Your task to perform on an android device: set the timer Image 0: 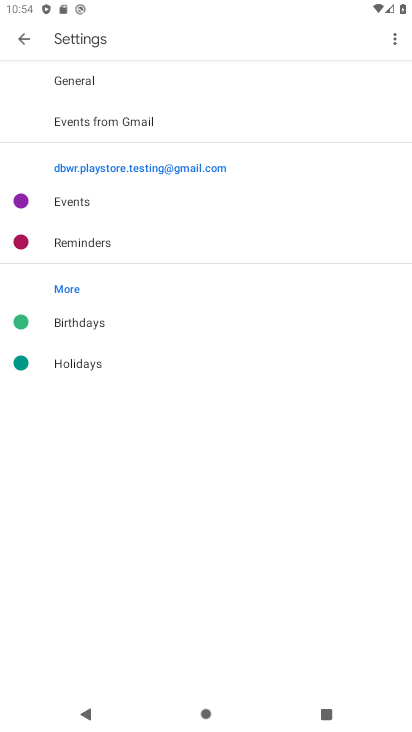
Step 0: press home button
Your task to perform on an android device: set the timer Image 1: 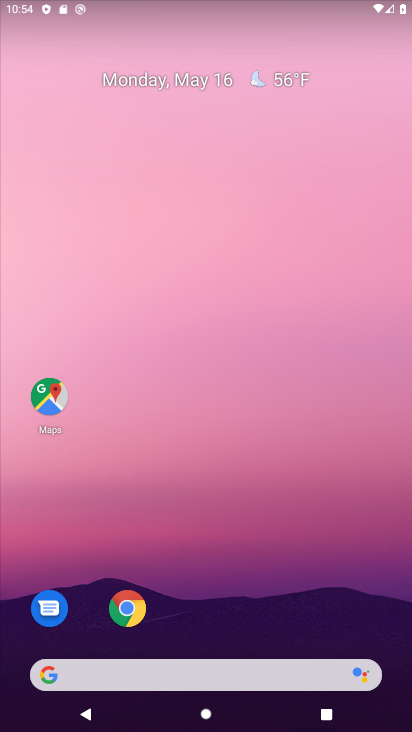
Step 1: drag from (343, 606) to (331, 188)
Your task to perform on an android device: set the timer Image 2: 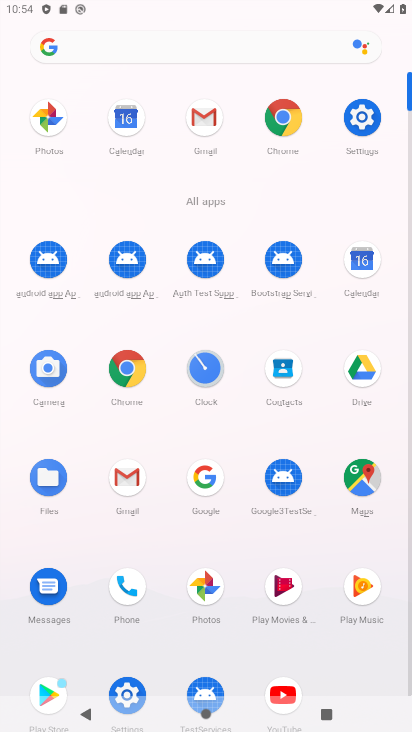
Step 2: click (198, 381)
Your task to perform on an android device: set the timer Image 3: 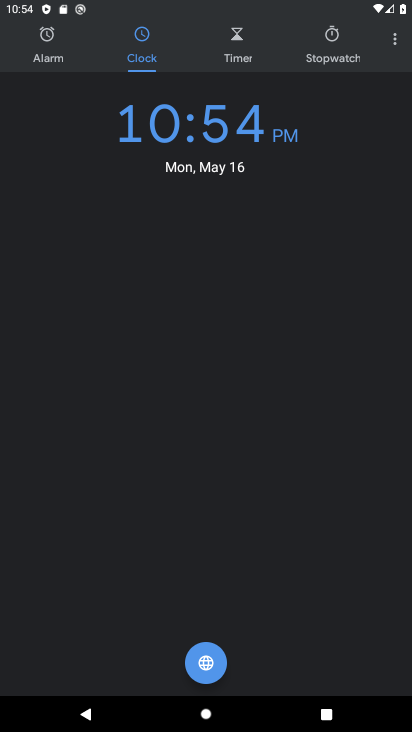
Step 3: click (254, 59)
Your task to perform on an android device: set the timer Image 4: 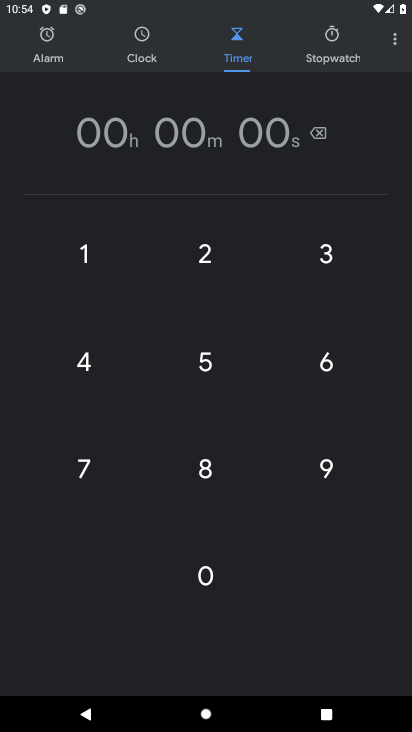
Step 4: click (93, 247)
Your task to perform on an android device: set the timer Image 5: 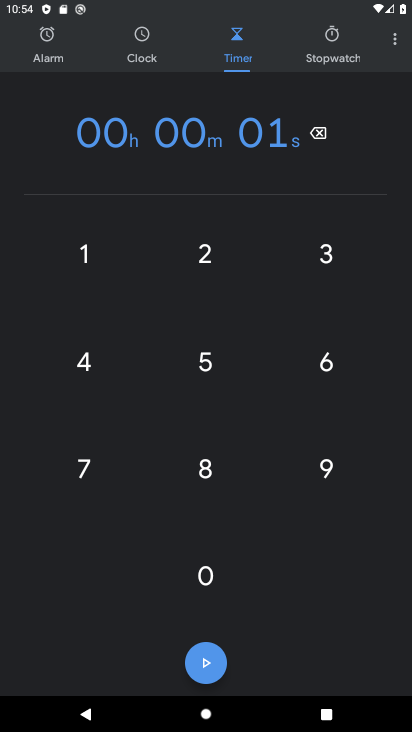
Step 5: click (206, 370)
Your task to perform on an android device: set the timer Image 6: 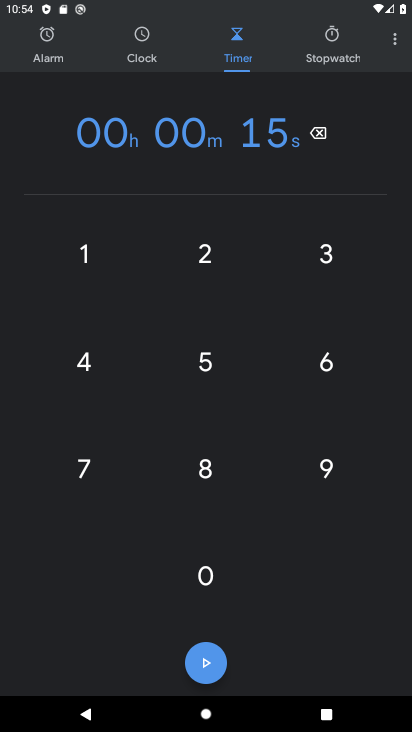
Step 6: click (214, 666)
Your task to perform on an android device: set the timer Image 7: 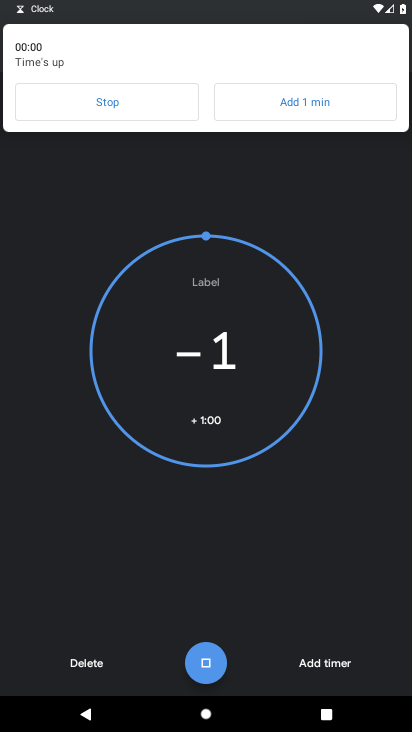
Step 7: click (219, 660)
Your task to perform on an android device: set the timer Image 8: 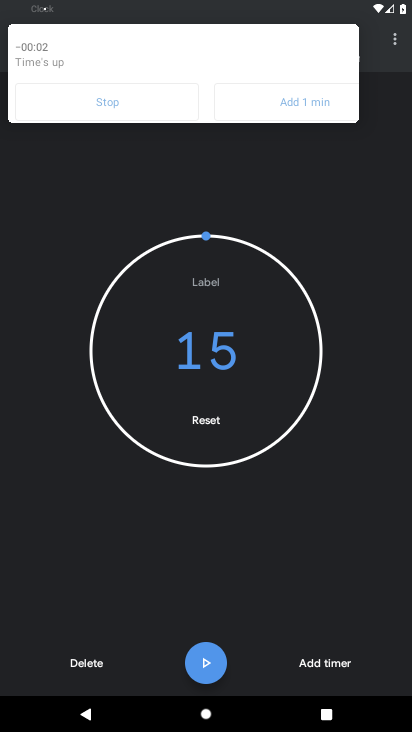
Step 8: click (90, 107)
Your task to perform on an android device: set the timer Image 9: 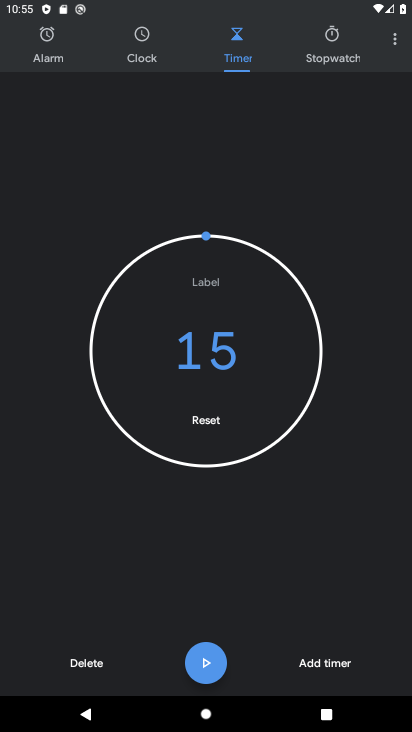
Step 9: task complete